Your task to perform on an android device: clear all cookies in the chrome app Image 0: 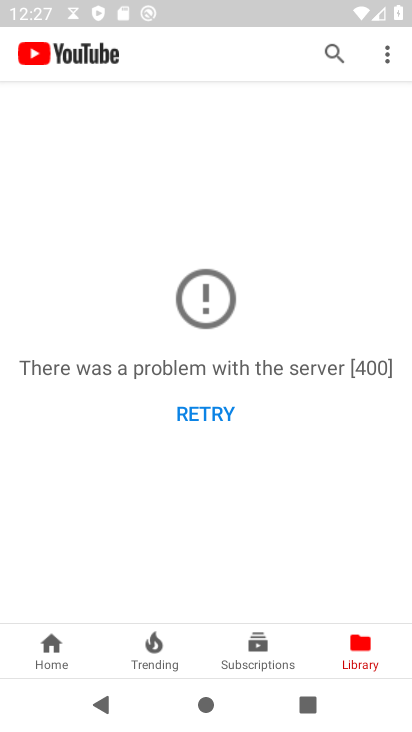
Step 0: press home button
Your task to perform on an android device: clear all cookies in the chrome app Image 1: 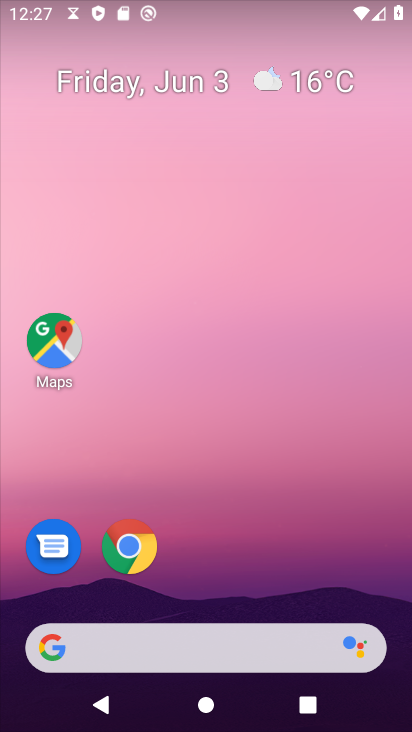
Step 1: click (116, 551)
Your task to perform on an android device: clear all cookies in the chrome app Image 2: 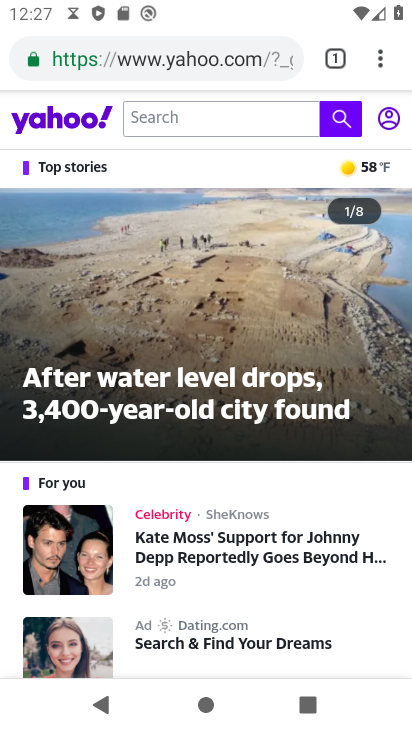
Step 2: drag from (376, 56) to (136, 332)
Your task to perform on an android device: clear all cookies in the chrome app Image 3: 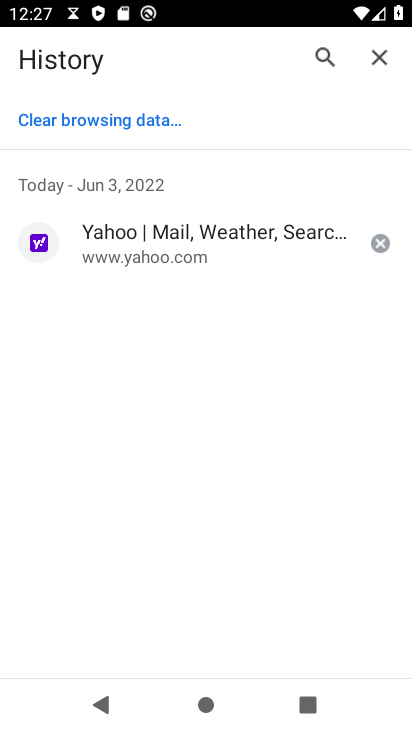
Step 3: click (103, 114)
Your task to perform on an android device: clear all cookies in the chrome app Image 4: 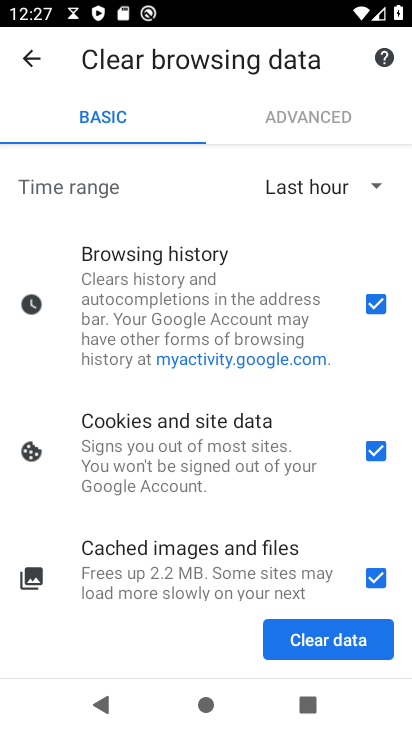
Step 4: click (379, 296)
Your task to perform on an android device: clear all cookies in the chrome app Image 5: 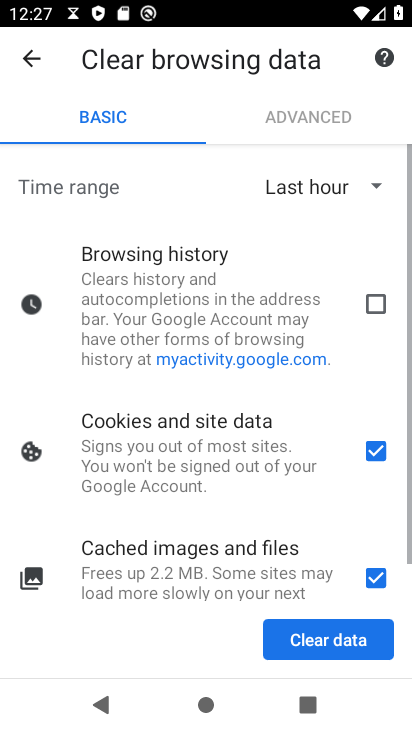
Step 5: click (384, 581)
Your task to perform on an android device: clear all cookies in the chrome app Image 6: 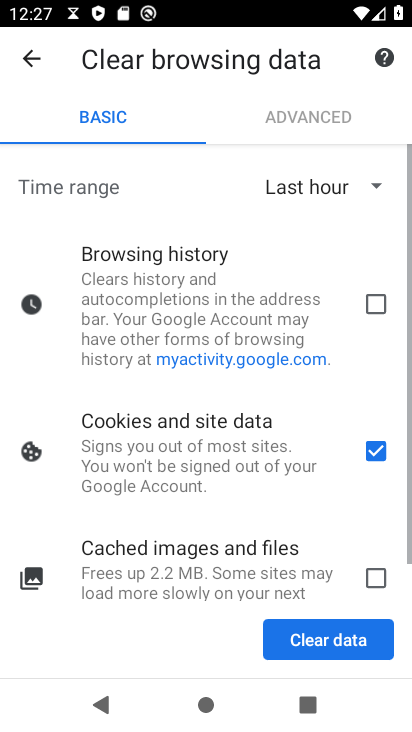
Step 6: click (320, 640)
Your task to perform on an android device: clear all cookies in the chrome app Image 7: 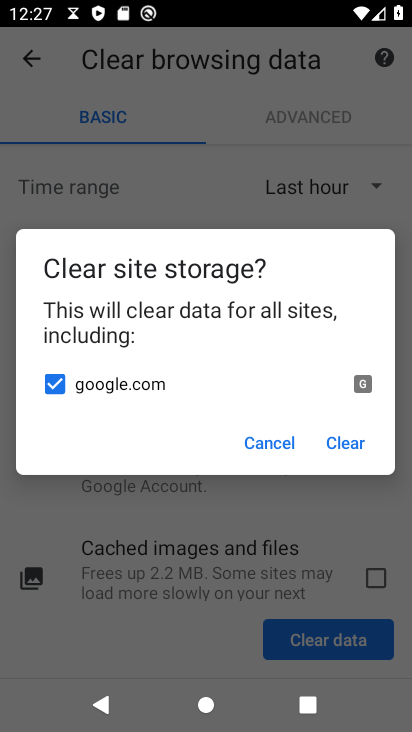
Step 7: click (343, 450)
Your task to perform on an android device: clear all cookies in the chrome app Image 8: 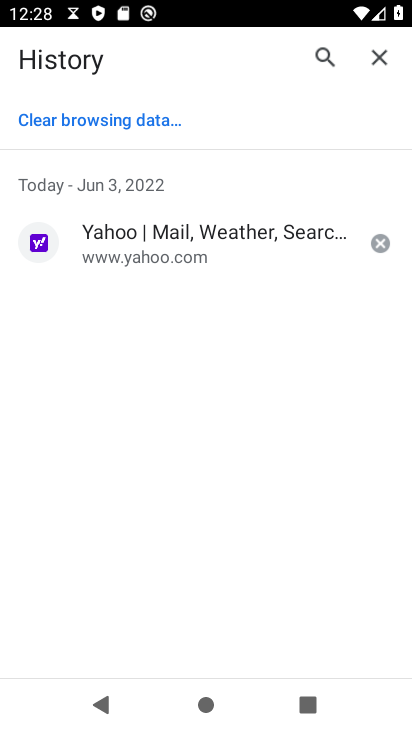
Step 8: task complete